Your task to perform on an android device: Open my contact list Image 0: 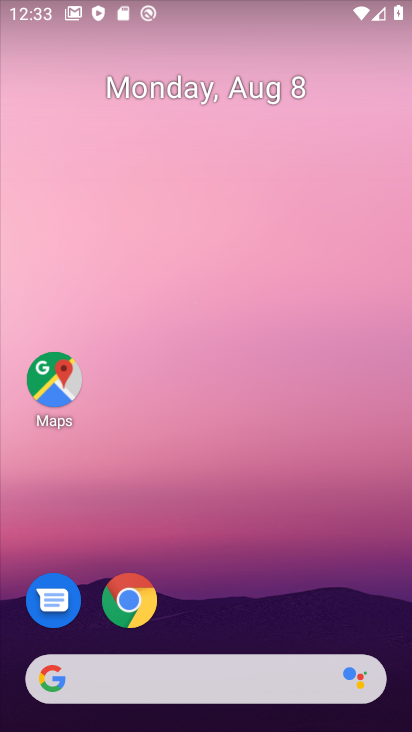
Step 0: drag from (280, 606) to (276, 24)
Your task to perform on an android device: Open my contact list Image 1: 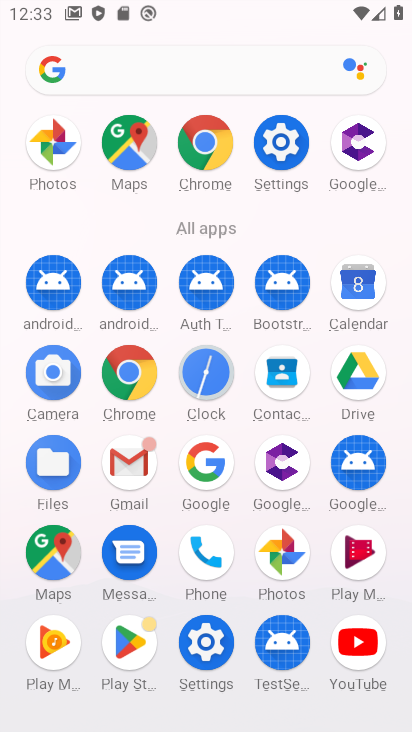
Step 1: click (289, 384)
Your task to perform on an android device: Open my contact list Image 2: 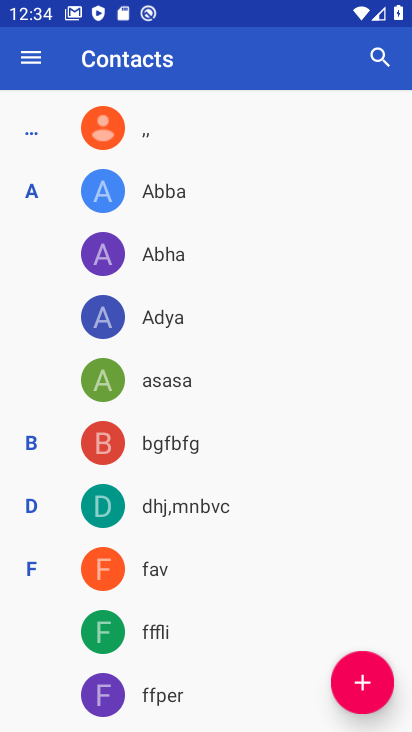
Step 2: task complete